Your task to perform on an android device: turn on bluetooth scan Image 0: 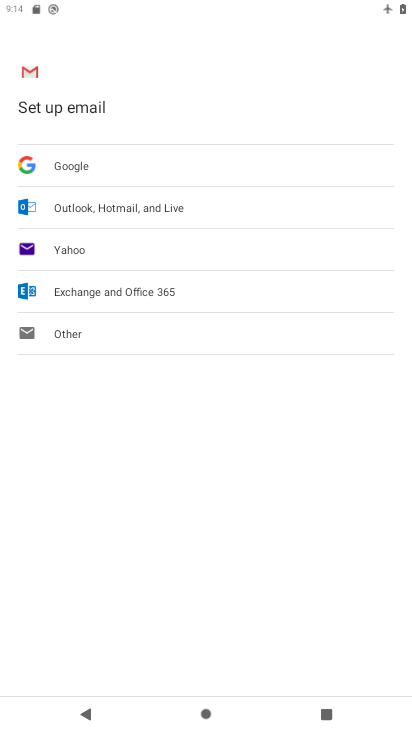
Step 0: press home button
Your task to perform on an android device: turn on bluetooth scan Image 1: 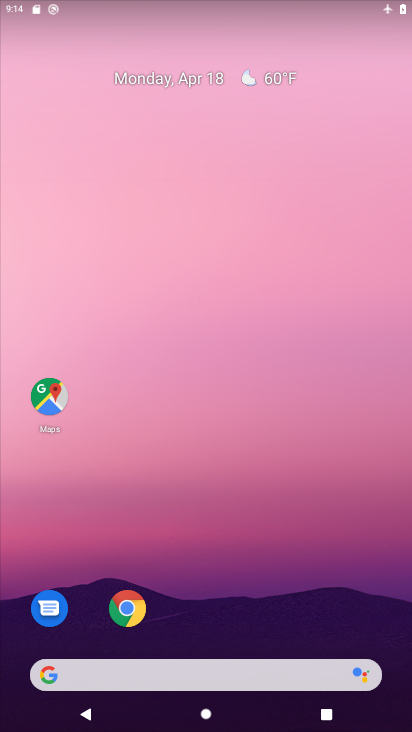
Step 1: drag from (355, 580) to (362, 121)
Your task to perform on an android device: turn on bluetooth scan Image 2: 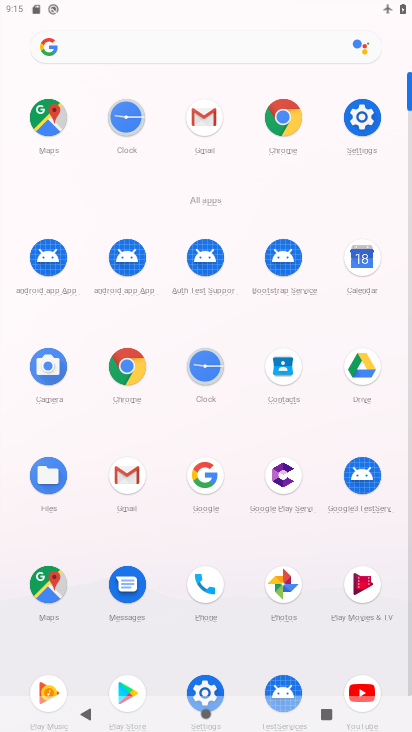
Step 2: click (356, 114)
Your task to perform on an android device: turn on bluetooth scan Image 3: 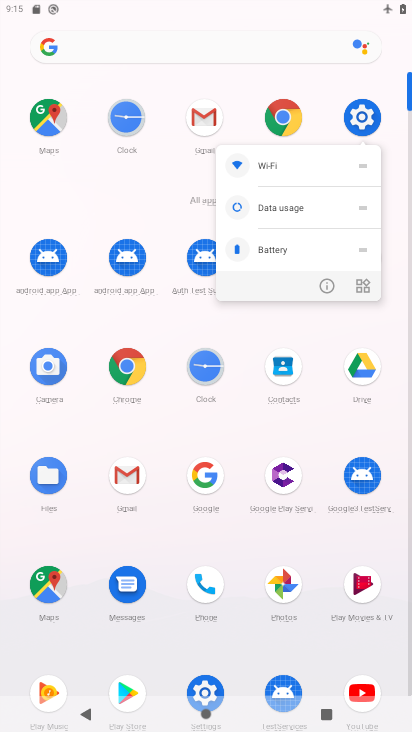
Step 3: click (365, 111)
Your task to perform on an android device: turn on bluetooth scan Image 4: 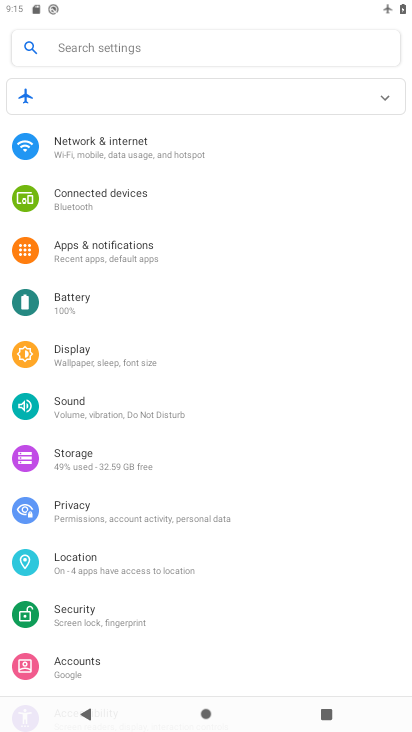
Step 4: drag from (174, 605) to (190, 273)
Your task to perform on an android device: turn on bluetooth scan Image 5: 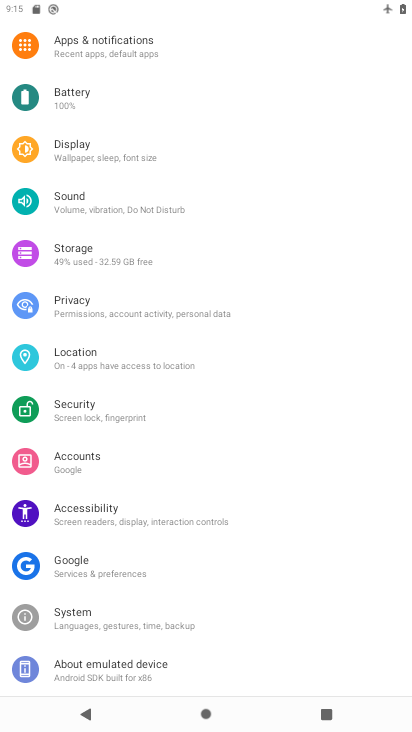
Step 5: click (125, 370)
Your task to perform on an android device: turn on bluetooth scan Image 6: 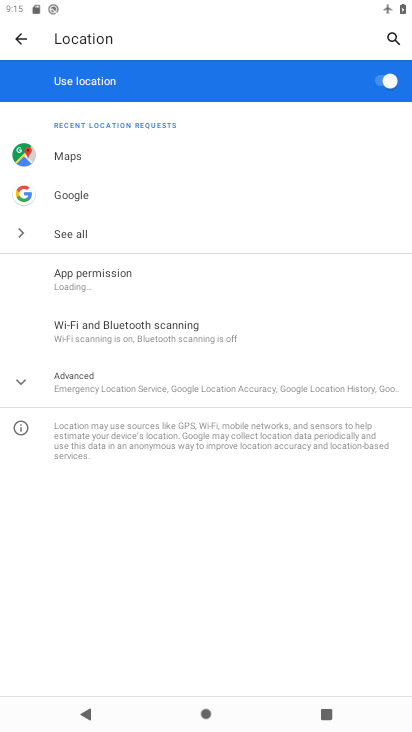
Step 6: click (135, 331)
Your task to perform on an android device: turn on bluetooth scan Image 7: 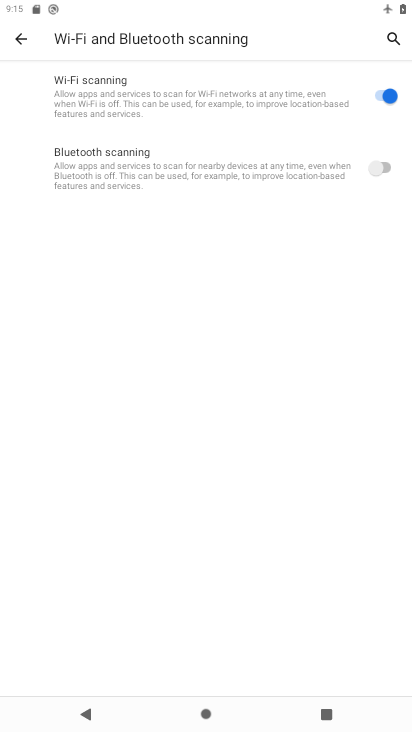
Step 7: click (386, 169)
Your task to perform on an android device: turn on bluetooth scan Image 8: 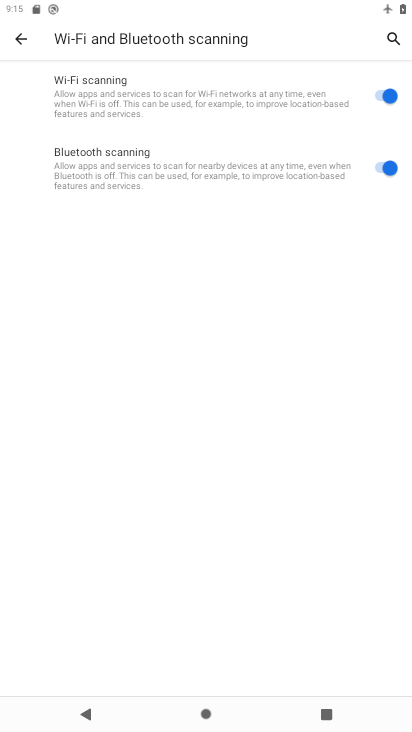
Step 8: task complete